Your task to perform on an android device: What is the news today? Image 0: 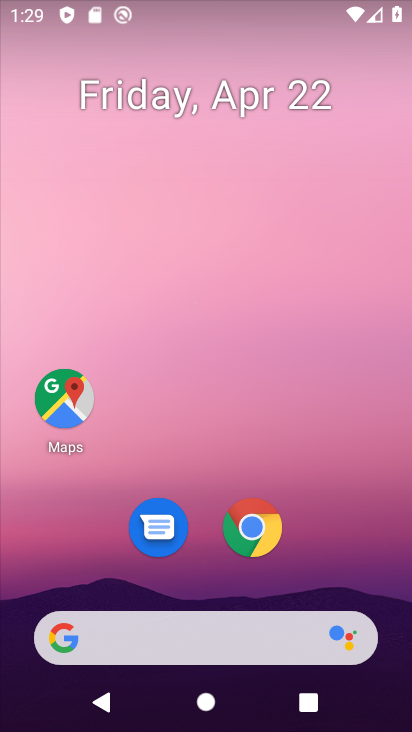
Step 0: drag from (267, 358) to (409, 80)
Your task to perform on an android device: What is the news today? Image 1: 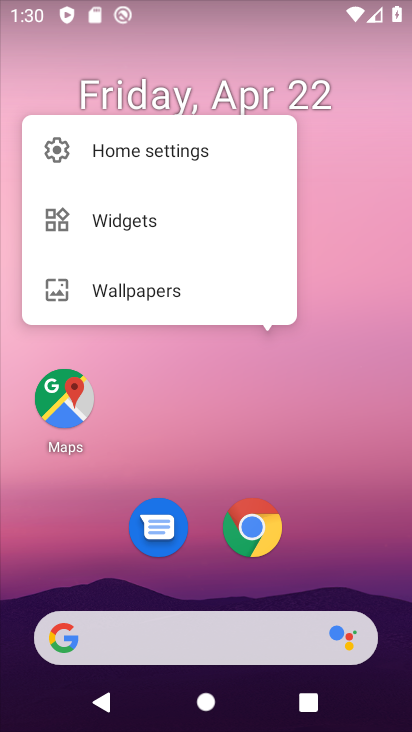
Step 1: drag from (346, 484) to (338, 71)
Your task to perform on an android device: What is the news today? Image 2: 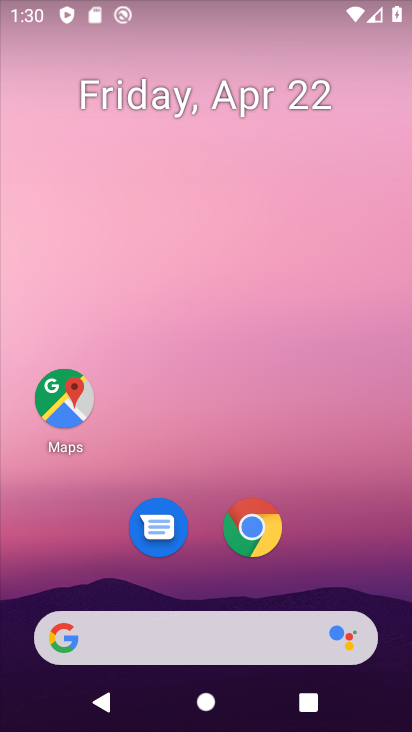
Step 2: drag from (199, 576) to (293, 128)
Your task to perform on an android device: What is the news today? Image 3: 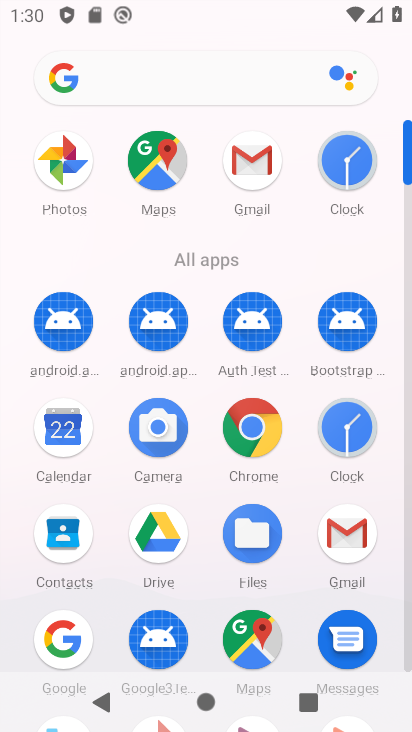
Step 3: click (246, 435)
Your task to perform on an android device: What is the news today? Image 4: 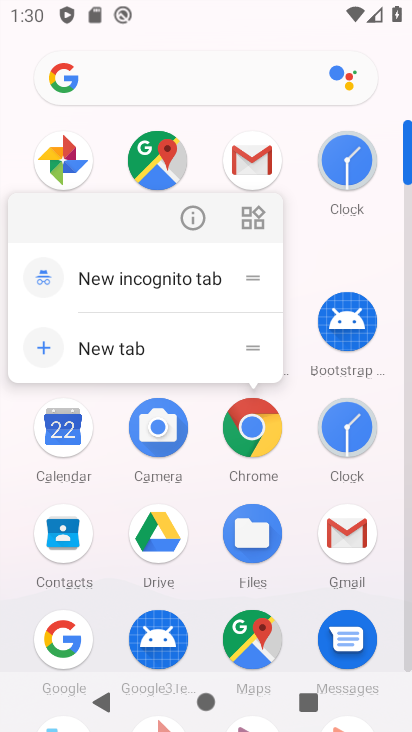
Step 4: click (200, 210)
Your task to perform on an android device: What is the news today? Image 5: 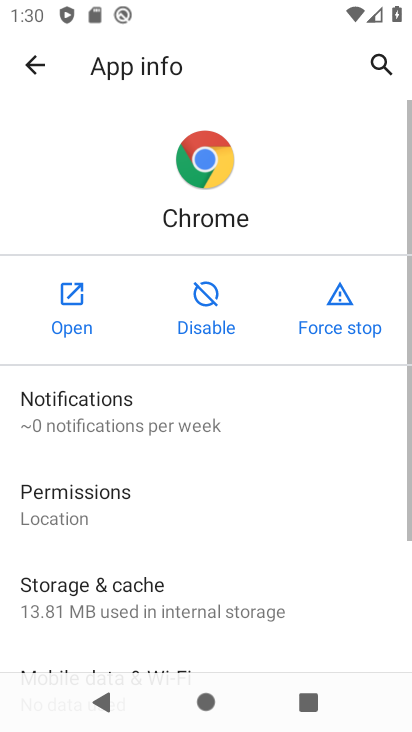
Step 5: click (69, 279)
Your task to perform on an android device: What is the news today? Image 6: 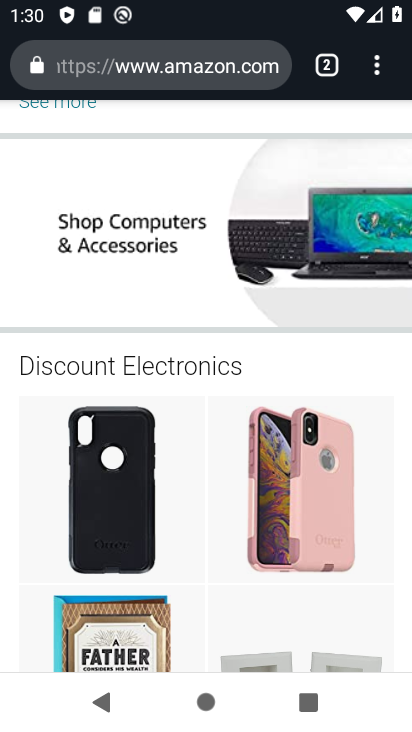
Step 6: click (210, 62)
Your task to perform on an android device: What is the news today? Image 7: 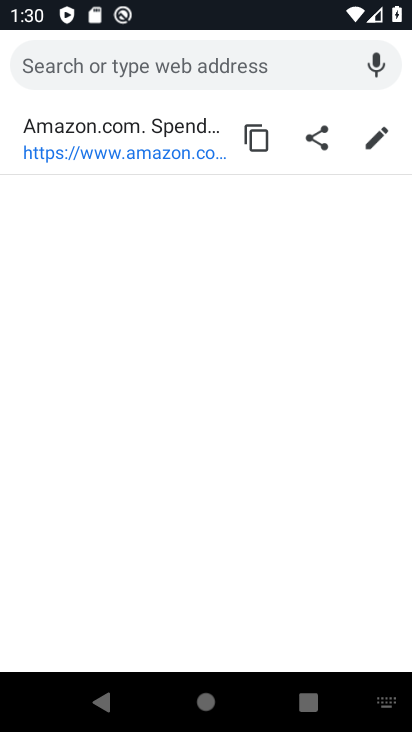
Step 7: type "news today"
Your task to perform on an android device: What is the news today? Image 8: 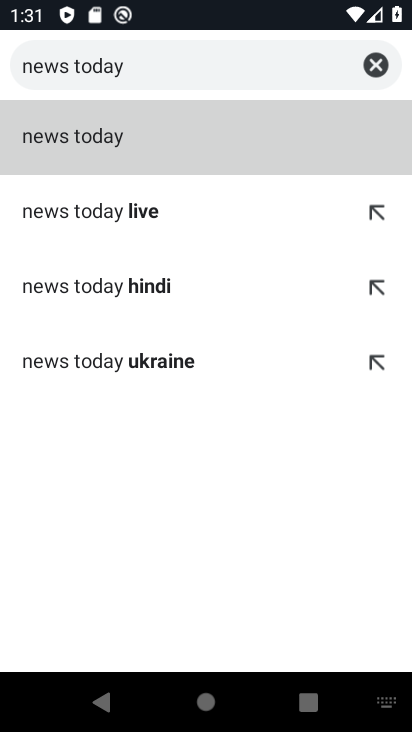
Step 8: click (61, 143)
Your task to perform on an android device: What is the news today? Image 9: 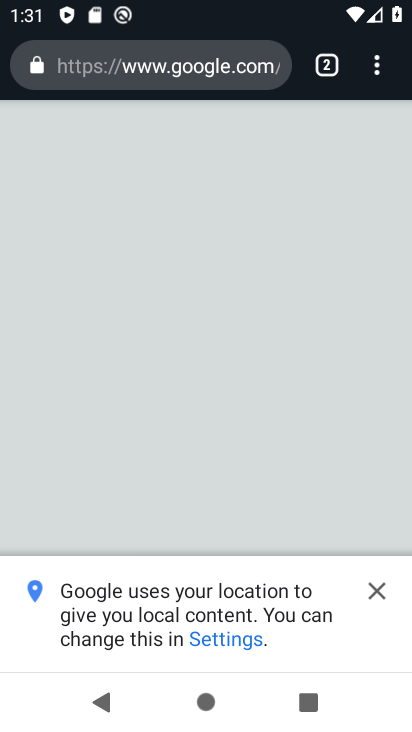
Step 9: task complete